Your task to perform on an android device: turn notification dots off Image 0: 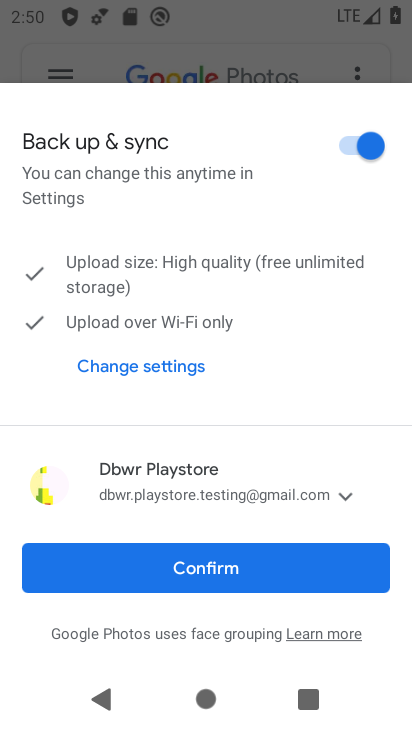
Step 0: press home button
Your task to perform on an android device: turn notification dots off Image 1: 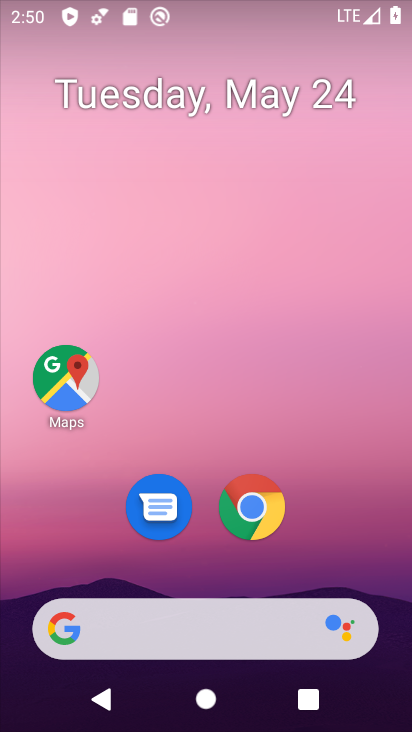
Step 1: drag from (186, 512) to (280, 87)
Your task to perform on an android device: turn notification dots off Image 2: 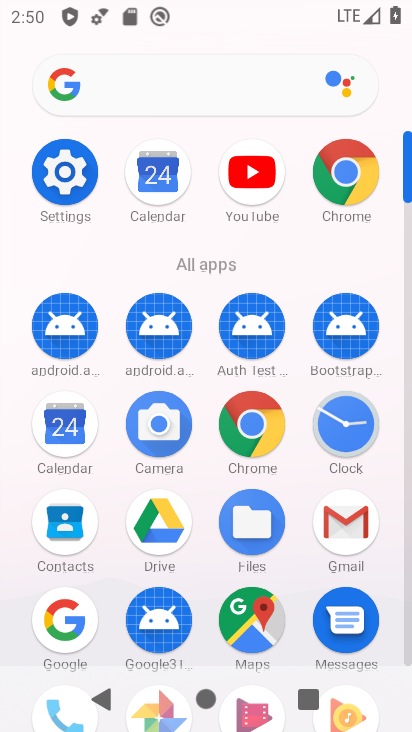
Step 2: click (71, 169)
Your task to perform on an android device: turn notification dots off Image 3: 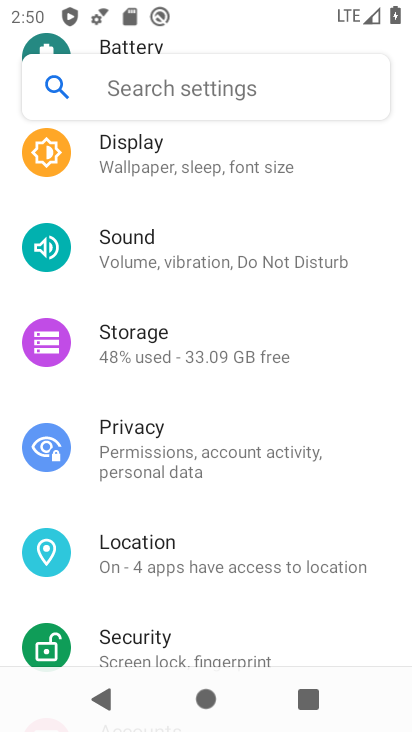
Step 3: drag from (187, 204) to (113, 652)
Your task to perform on an android device: turn notification dots off Image 4: 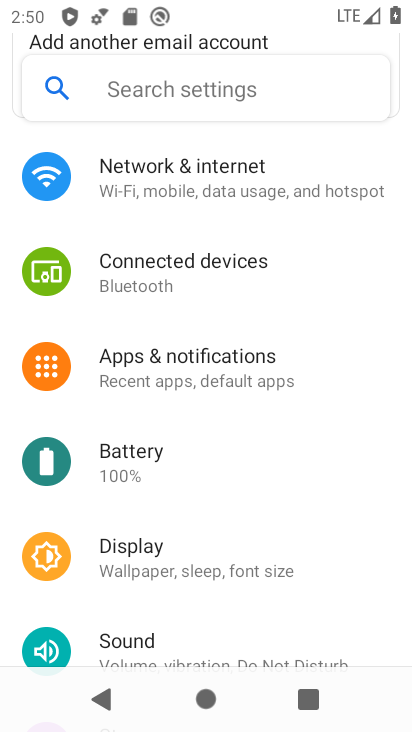
Step 4: click (165, 356)
Your task to perform on an android device: turn notification dots off Image 5: 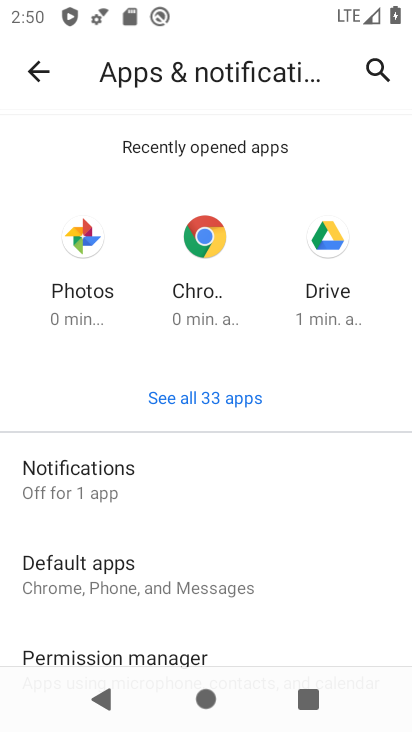
Step 5: click (166, 476)
Your task to perform on an android device: turn notification dots off Image 6: 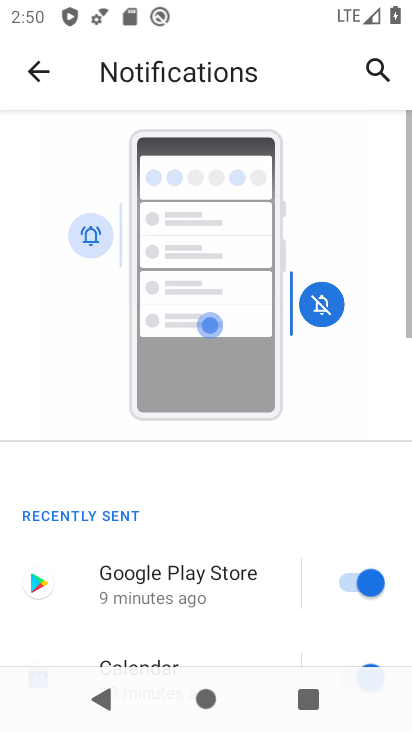
Step 6: drag from (151, 630) to (308, 156)
Your task to perform on an android device: turn notification dots off Image 7: 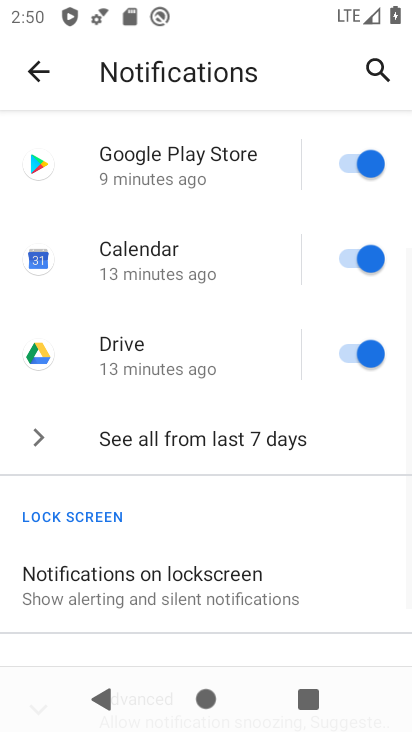
Step 7: drag from (189, 589) to (289, 205)
Your task to perform on an android device: turn notification dots off Image 8: 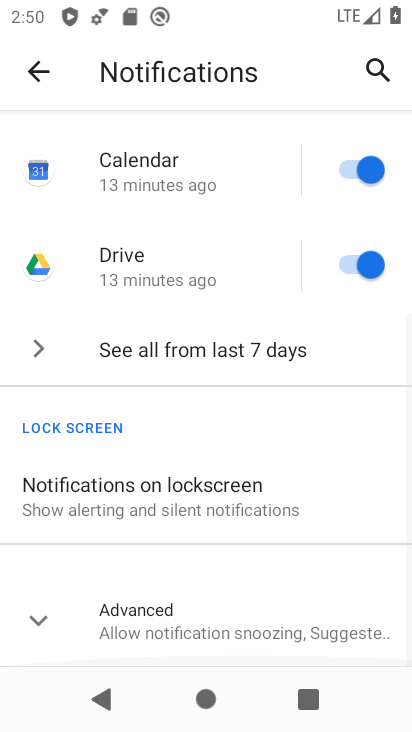
Step 8: click (178, 633)
Your task to perform on an android device: turn notification dots off Image 9: 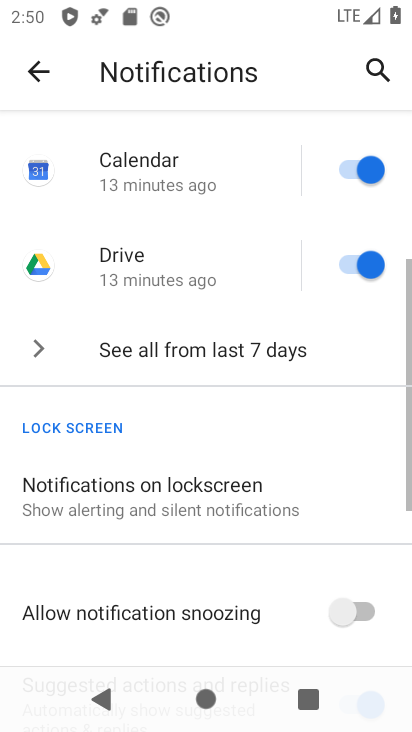
Step 9: drag from (158, 605) to (258, 171)
Your task to perform on an android device: turn notification dots off Image 10: 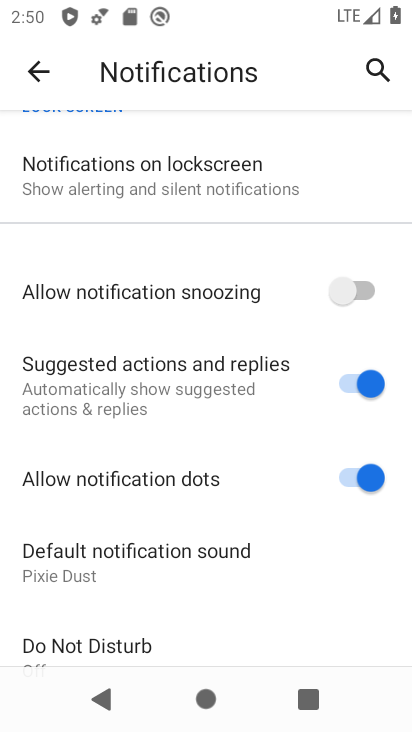
Step 10: click (347, 482)
Your task to perform on an android device: turn notification dots off Image 11: 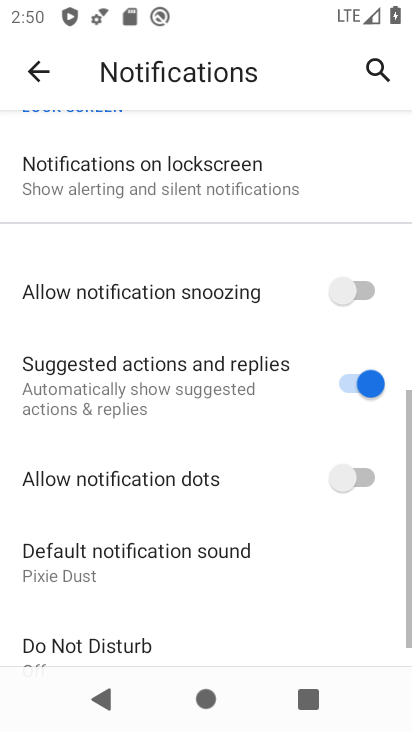
Step 11: task complete